Your task to perform on an android device: Open settings Image 0: 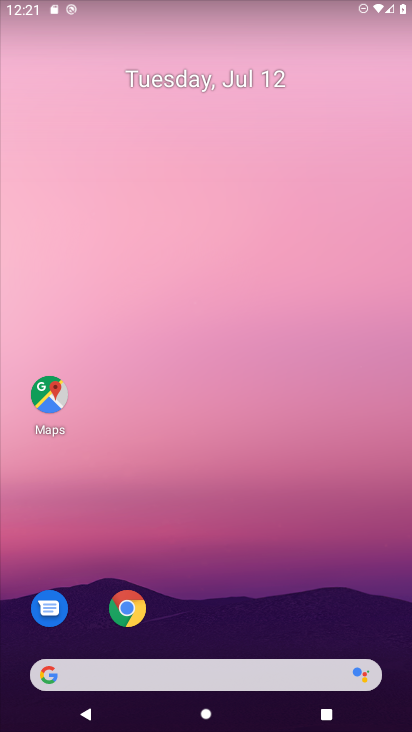
Step 0: drag from (210, 634) to (101, 7)
Your task to perform on an android device: Open settings Image 1: 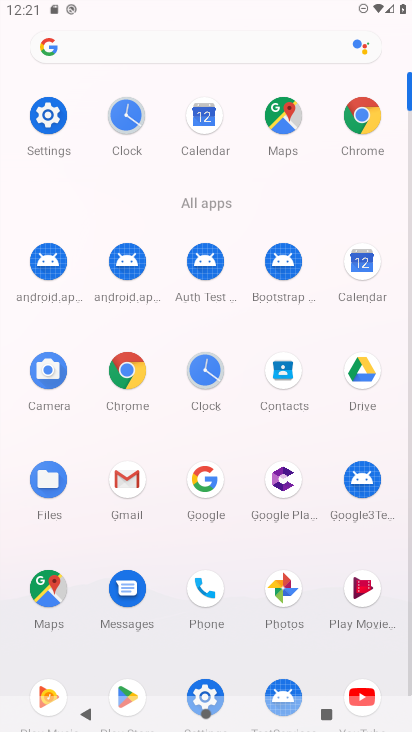
Step 1: click (54, 115)
Your task to perform on an android device: Open settings Image 2: 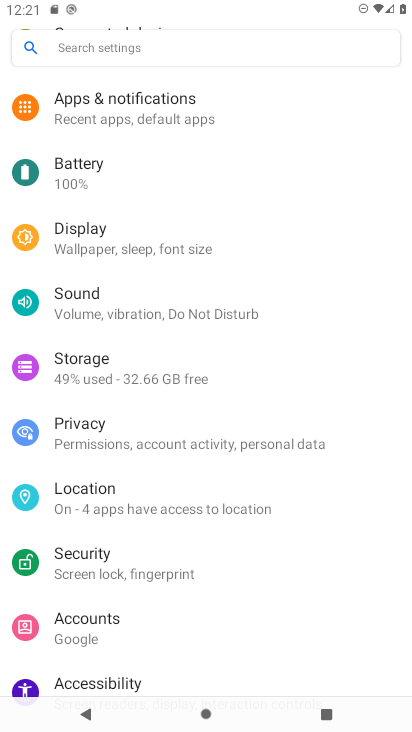
Step 2: task complete